Your task to perform on an android device: See recent photos Image 0: 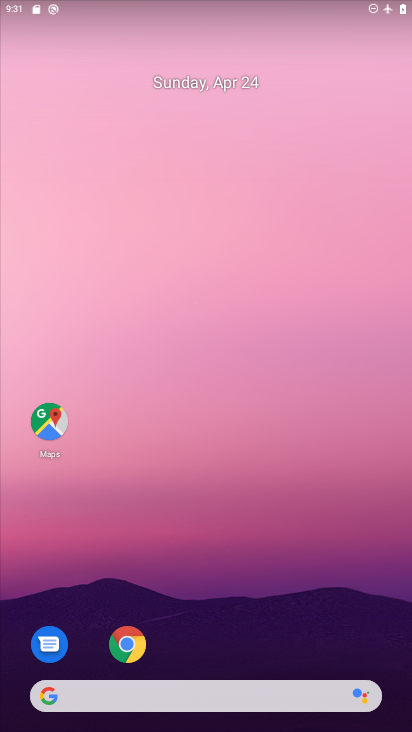
Step 0: drag from (231, 670) to (166, 72)
Your task to perform on an android device: See recent photos Image 1: 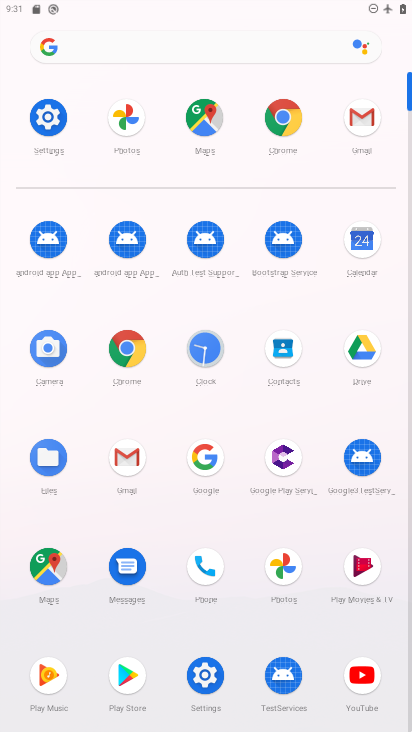
Step 1: click (286, 567)
Your task to perform on an android device: See recent photos Image 2: 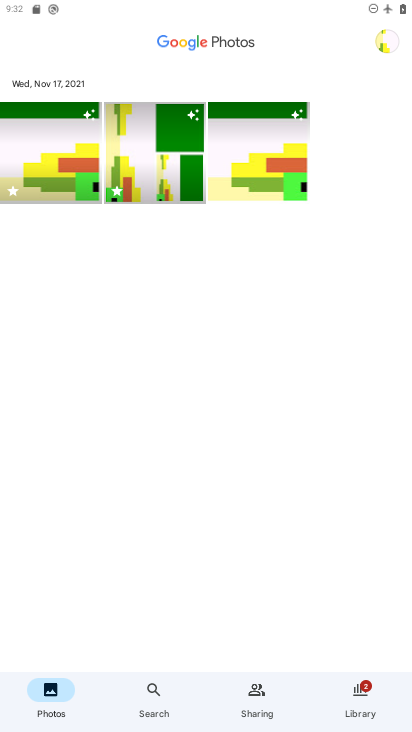
Step 2: task complete